Your task to perform on an android device: Search for pizza restaurants on Maps Image 0: 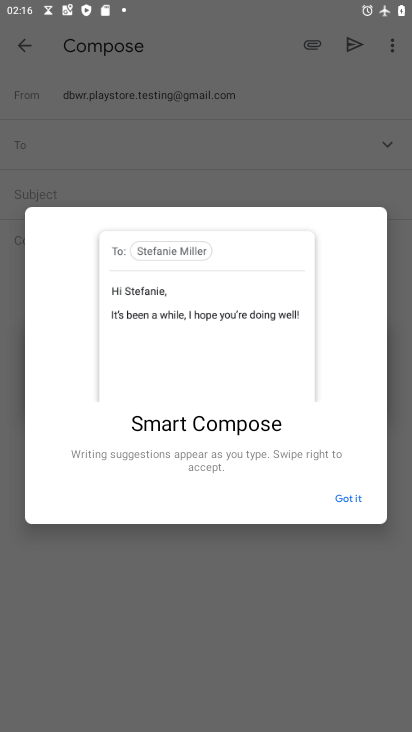
Step 0: press home button
Your task to perform on an android device: Search for pizza restaurants on Maps Image 1: 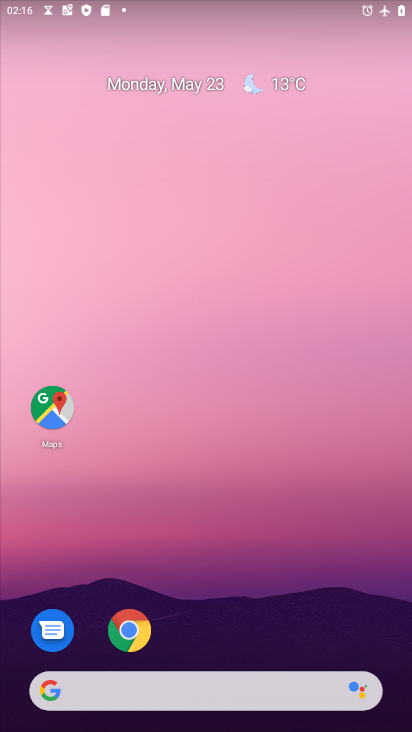
Step 1: click (37, 381)
Your task to perform on an android device: Search for pizza restaurants on Maps Image 2: 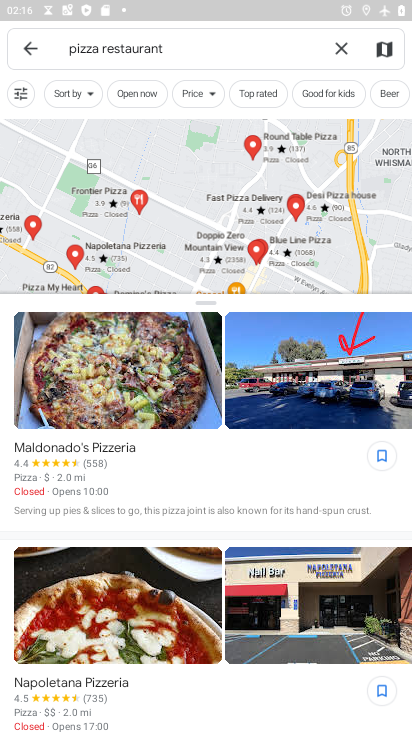
Step 2: task complete